Your task to perform on an android device: turn notification dots on Image 0: 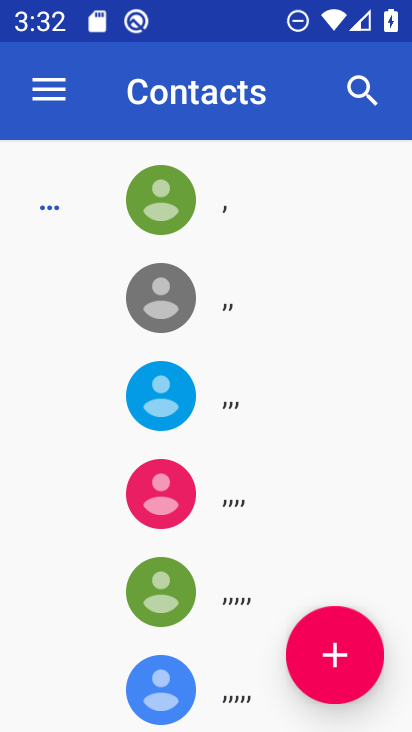
Step 0: press home button
Your task to perform on an android device: turn notification dots on Image 1: 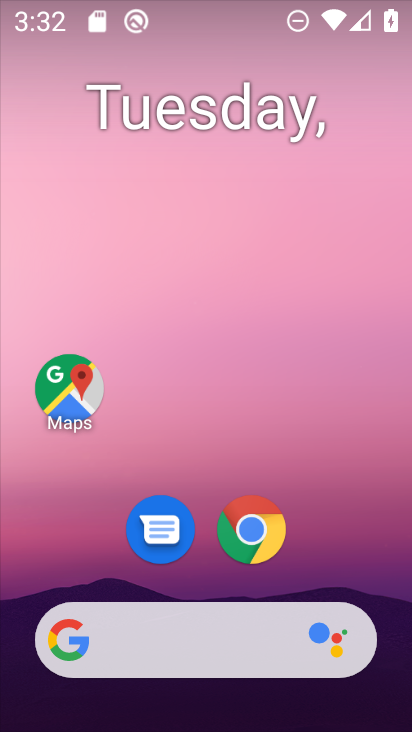
Step 1: drag from (286, 568) to (309, 294)
Your task to perform on an android device: turn notification dots on Image 2: 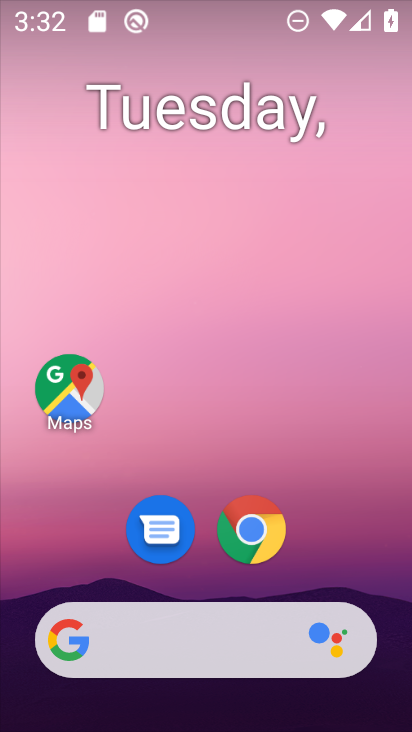
Step 2: drag from (235, 518) to (235, 301)
Your task to perform on an android device: turn notification dots on Image 3: 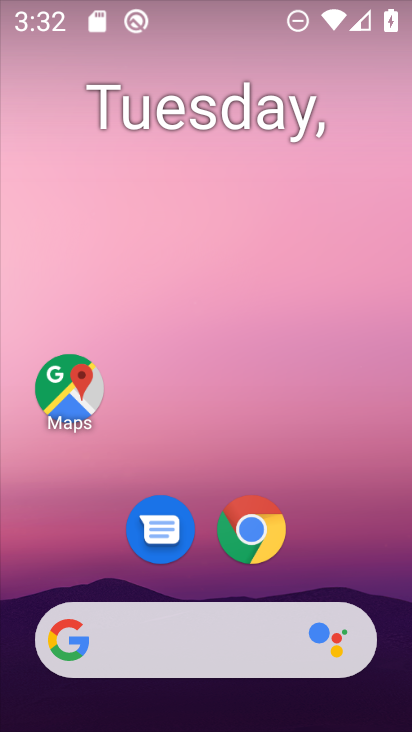
Step 3: drag from (200, 606) to (198, 73)
Your task to perform on an android device: turn notification dots on Image 4: 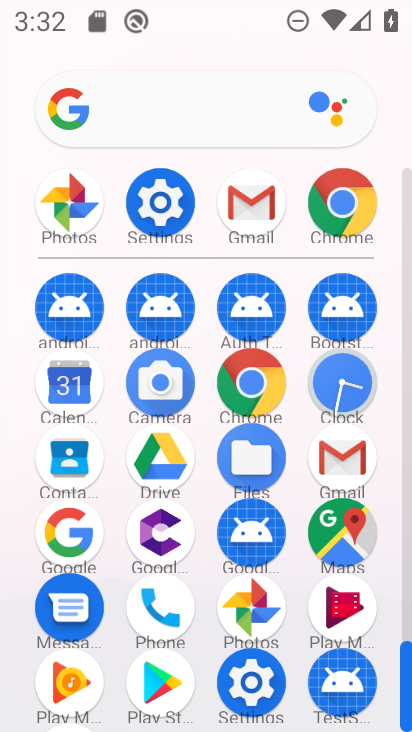
Step 4: click (169, 194)
Your task to perform on an android device: turn notification dots on Image 5: 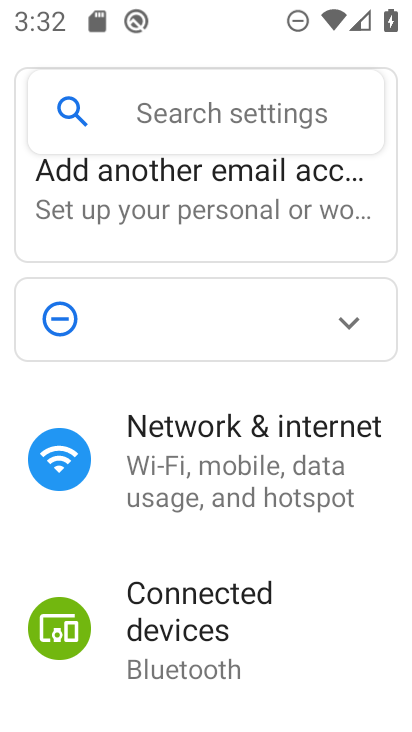
Step 5: click (181, 101)
Your task to perform on an android device: turn notification dots on Image 6: 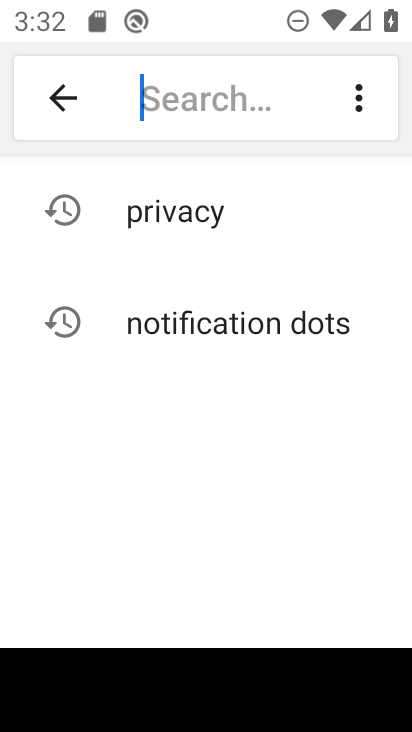
Step 6: click (147, 304)
Your task to perform on an android device: turn notification dots on Image 7: 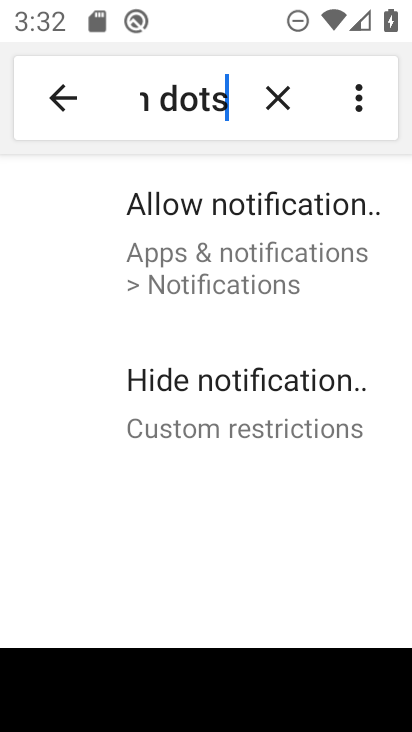
Step 7: click (283, 258)
Your task to perform on an android device: turn notification dots on Image 8: 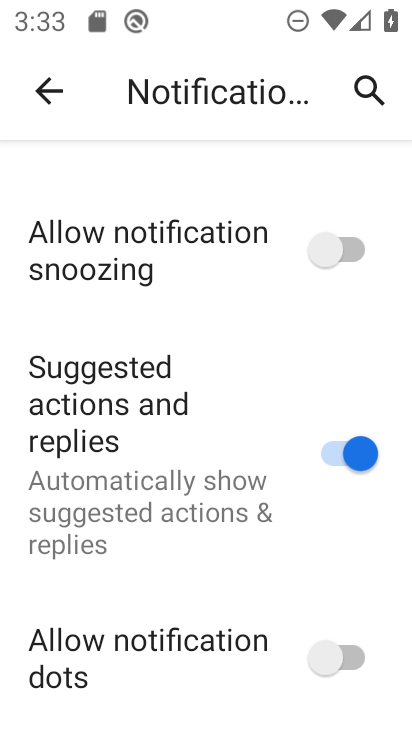
Step 8: task complete